Your task to perform on an android device: Search for pizza restaurants on Maps Image 0: 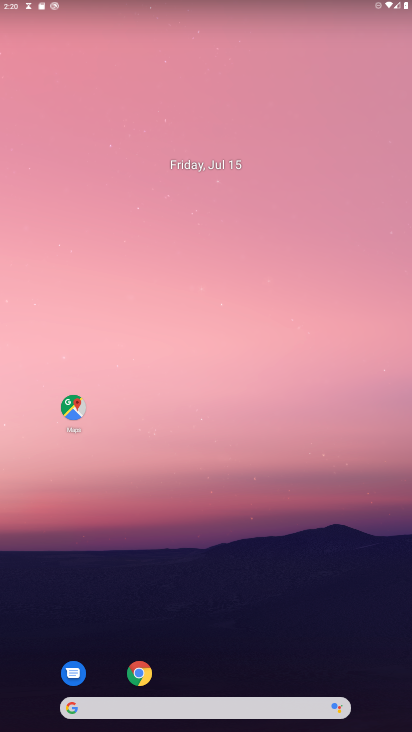
Step 0: click (69, 410)
Your task to perform on an android device: Search for pizza restaurants on Maps Image 1: 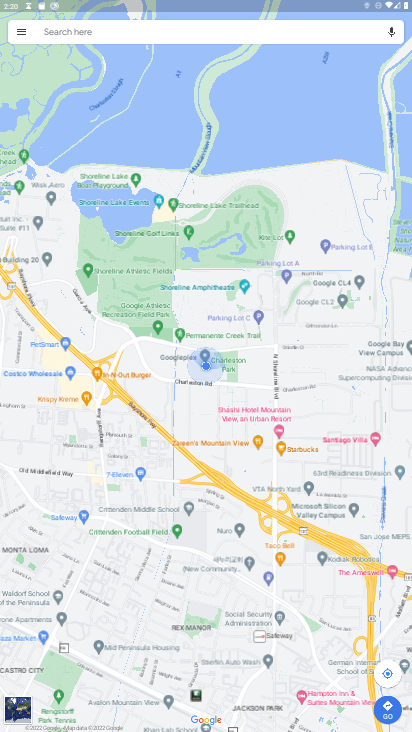
Step 1: click (145, 30)
Your task to perform on an android device: Search for pizza restaurants on Maps Image 2: 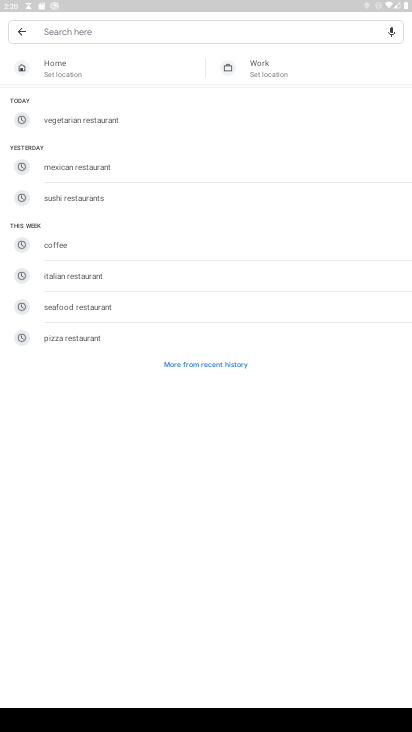
Step 2: click (62, 335)
Your task to perform on an android device: Search for pizza restaurants on Maps Image 3: 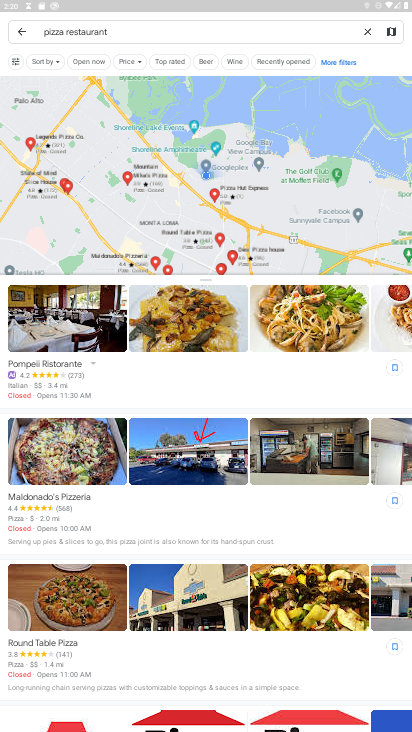
Step 3: task complete